Your task to perform on an android device: Open Google Maps and go to "Timeline" Image 0: 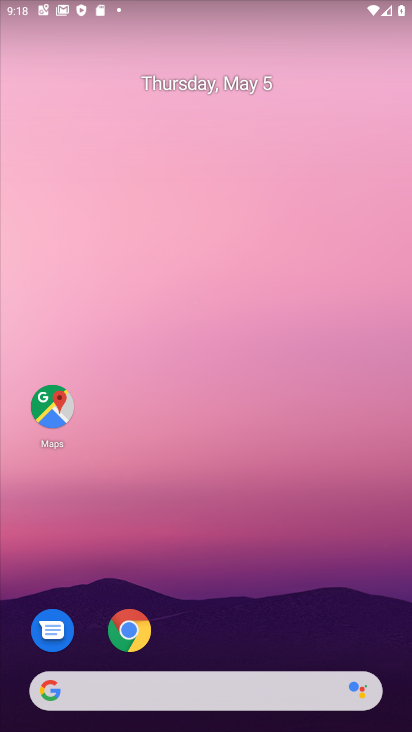
Step 0: click (57, 411)
Your task to perform on an android device: Open Google Maps and go to "Timeline" Image 1: 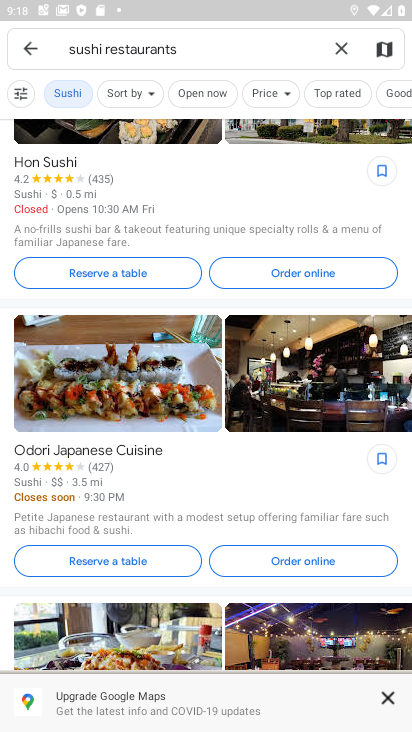
Step 1: press back button
Your task to perform on an android device: Open Google Maps and go to "Timeline" Image 2: 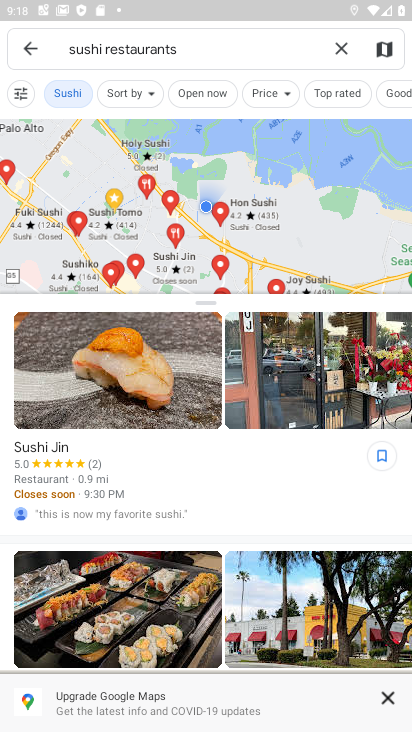
Step 2: press back button
Your task to perform on an android device: Open Google Maps and go to "Timeline" Image 3: 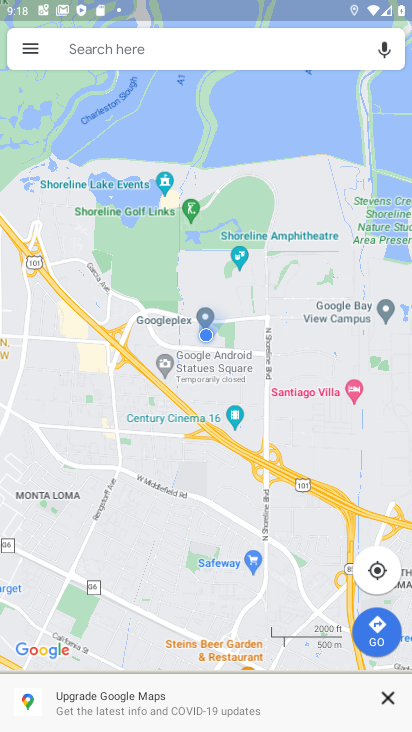
Step 3: click (34, 46)
Your task to perform on an android device: Open Google Maps and go to "Timeline" Image 4: 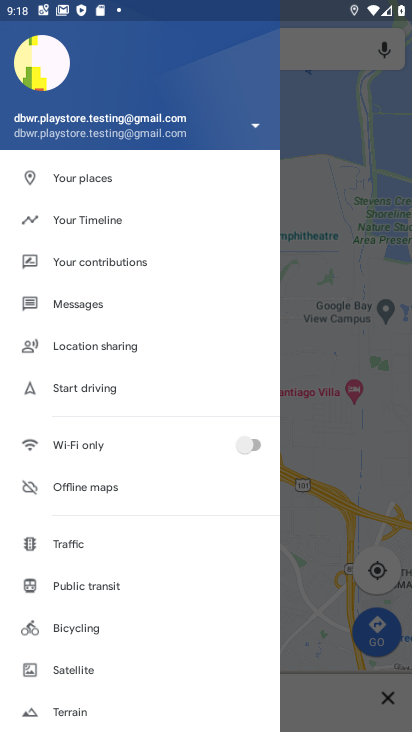
Step 4: click (62, 217)
Your task to perform on an android device: Open Google Maps and go to "Timeline" Image 5: 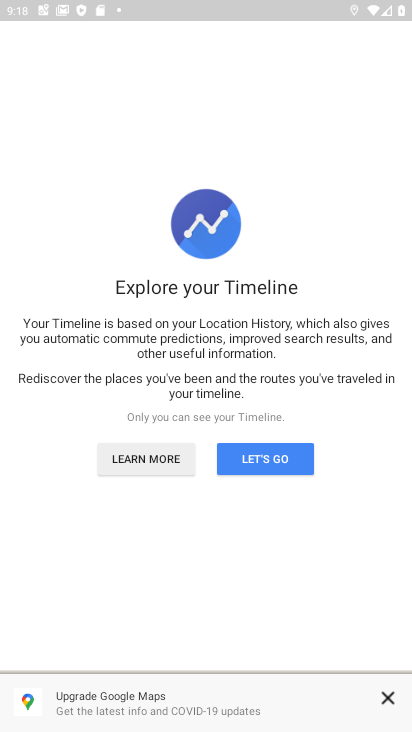
Step 5: task complete